Your task to perform on an android device: check android version Image 0: 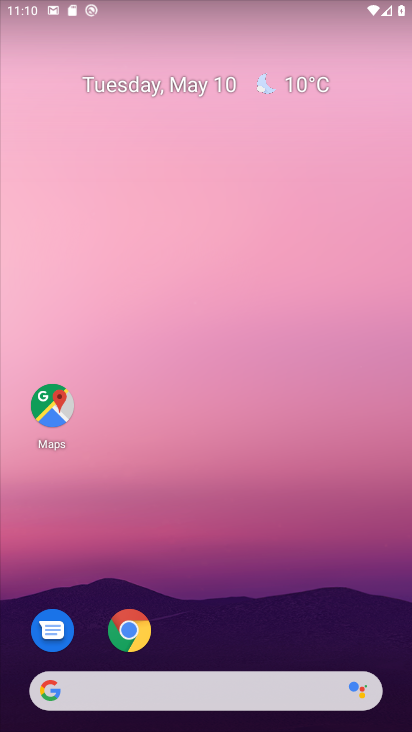
Step 0: drag from (262, 551) to (259, 30)
Your task to perform on an android device: check android version Image 1: 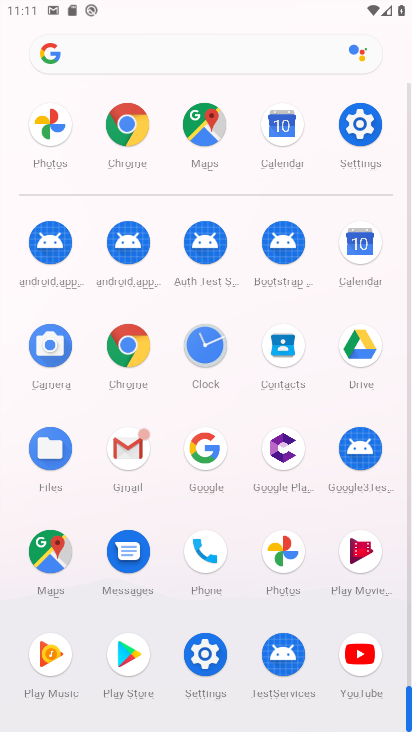
Step 1: click (363, 136)
Your task to perform on an android device: check android version Image 2: 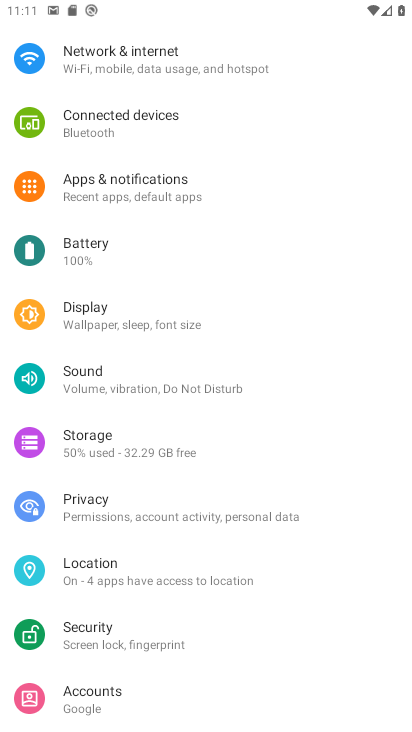
Step 2: drag from (278, 667) to (295, 53)
Your task to perform on an android device: check android version Image 3: 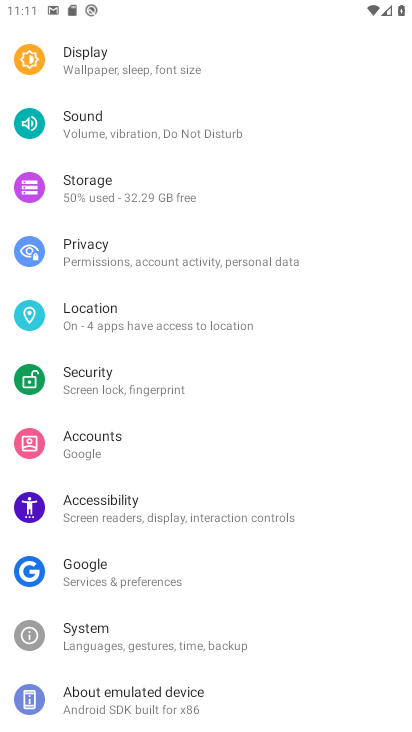
Step 3: click (191, 709)
Your task to perform on an android device: check android version Image 4: 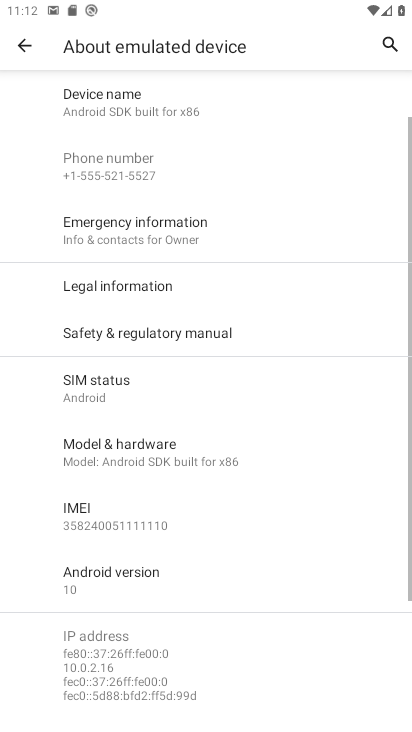
Step 4: click (172, 587)
Your task to perform on an android device: check android version Image 5: 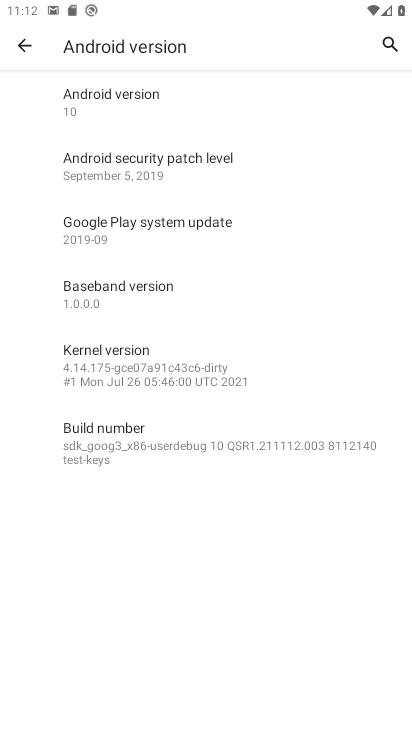
Step 5: task complete